Your task to perform on an android device: Open privacy settings Image 0: 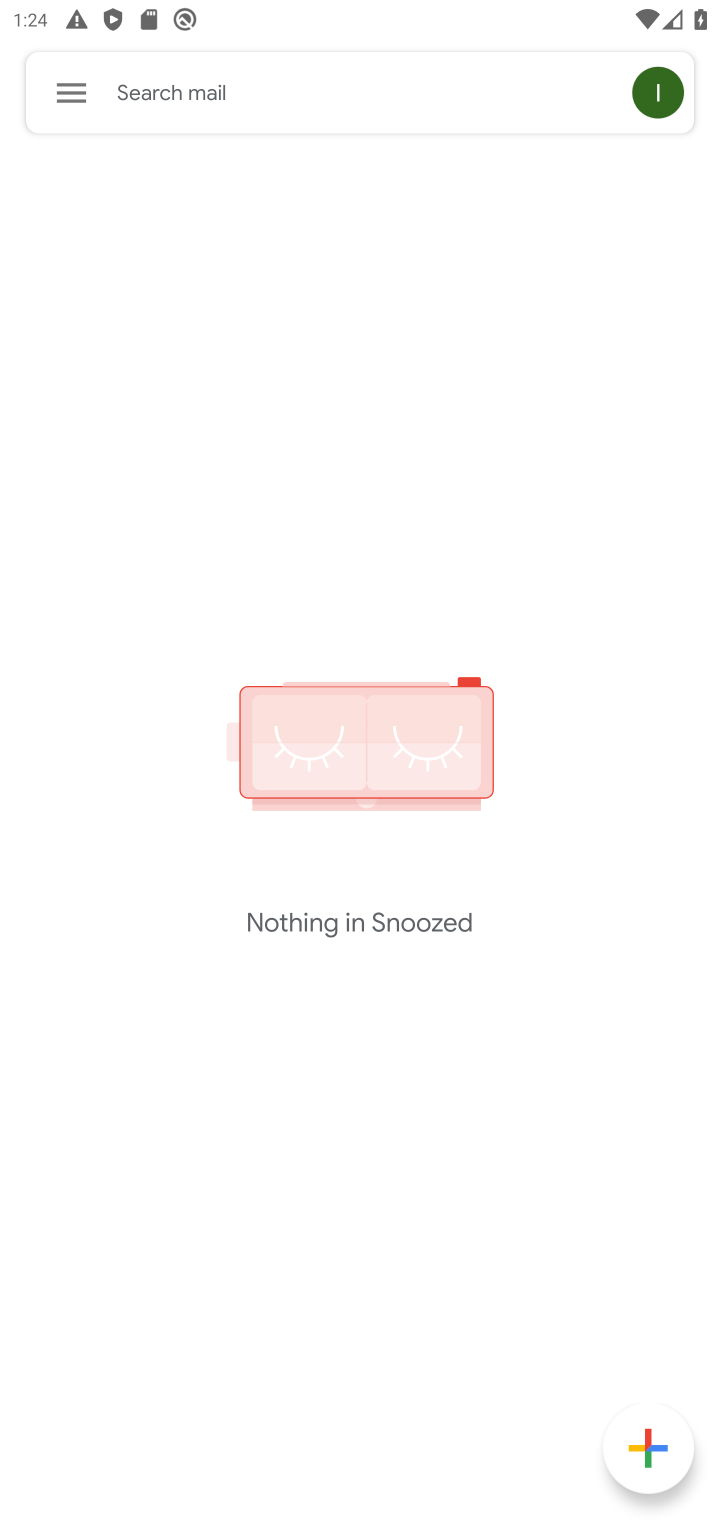
Step 0: press home button
Your task to perform on an android device: Open privacy settings Image 1: 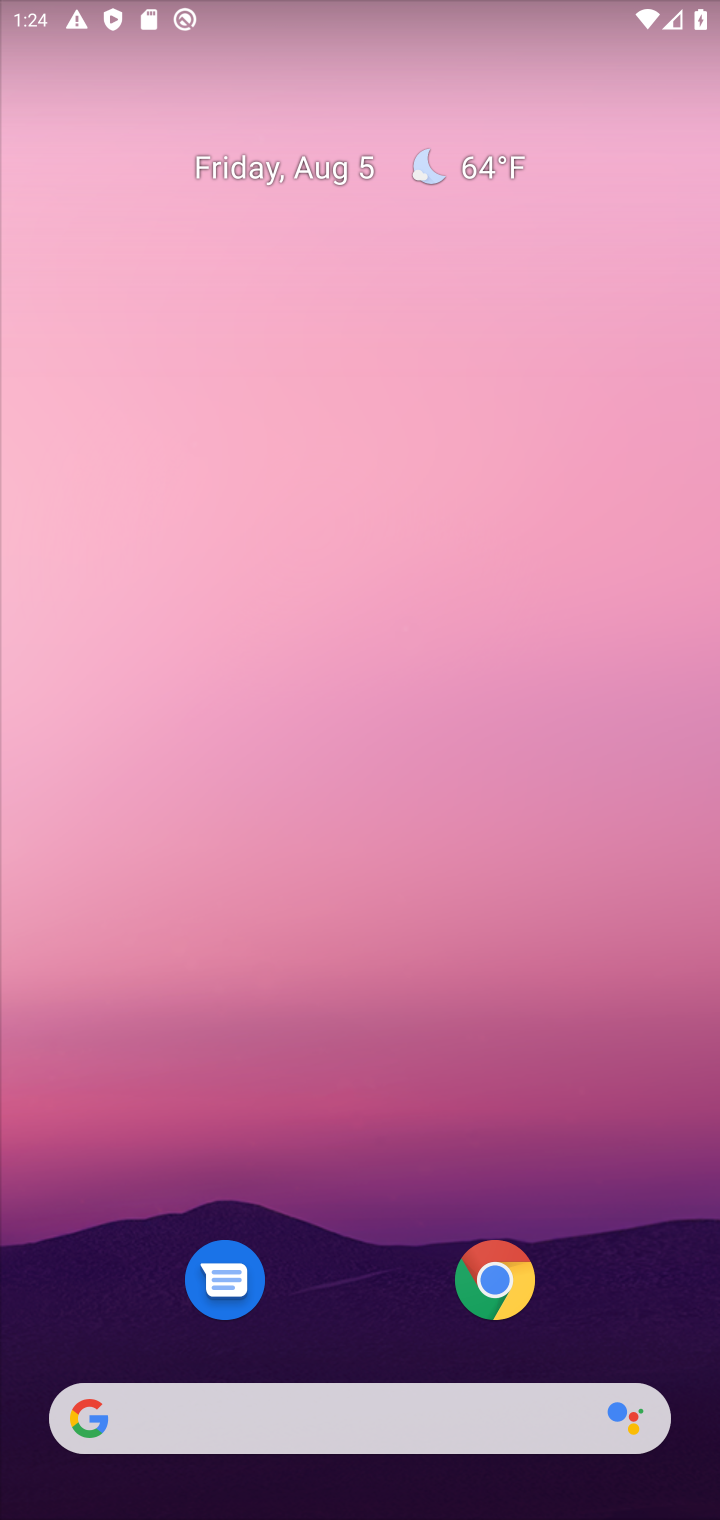
Step 1: drag from (335, 1269) to (268, 48)
Your task to perform on an android device: Open privacy settings Image 2: 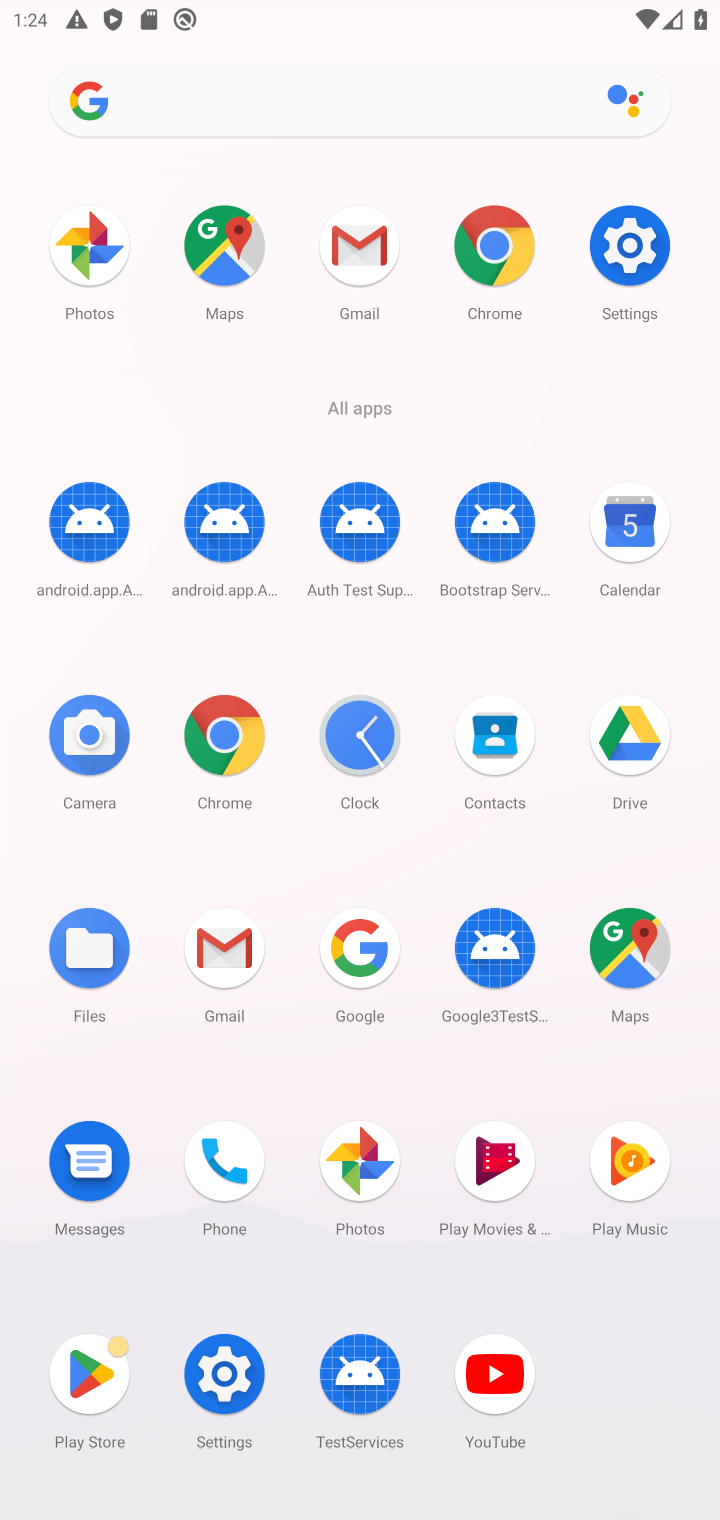
Step 2: click (215, 1370)
Your task to perform on an android device: Open privacy settings Image 3: 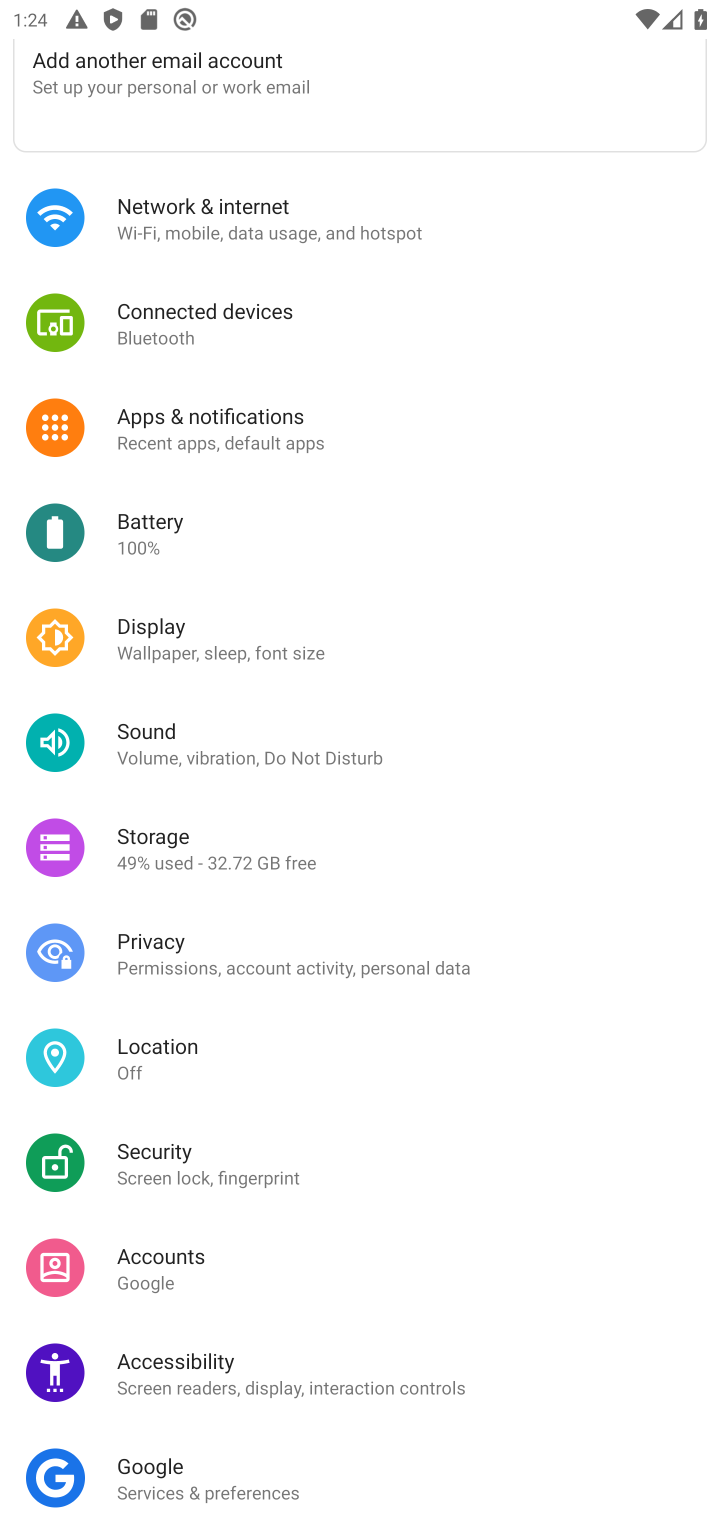
Step 3: click (206, 971)
Your task to perform on an android device: Open privacy settings Image 4: 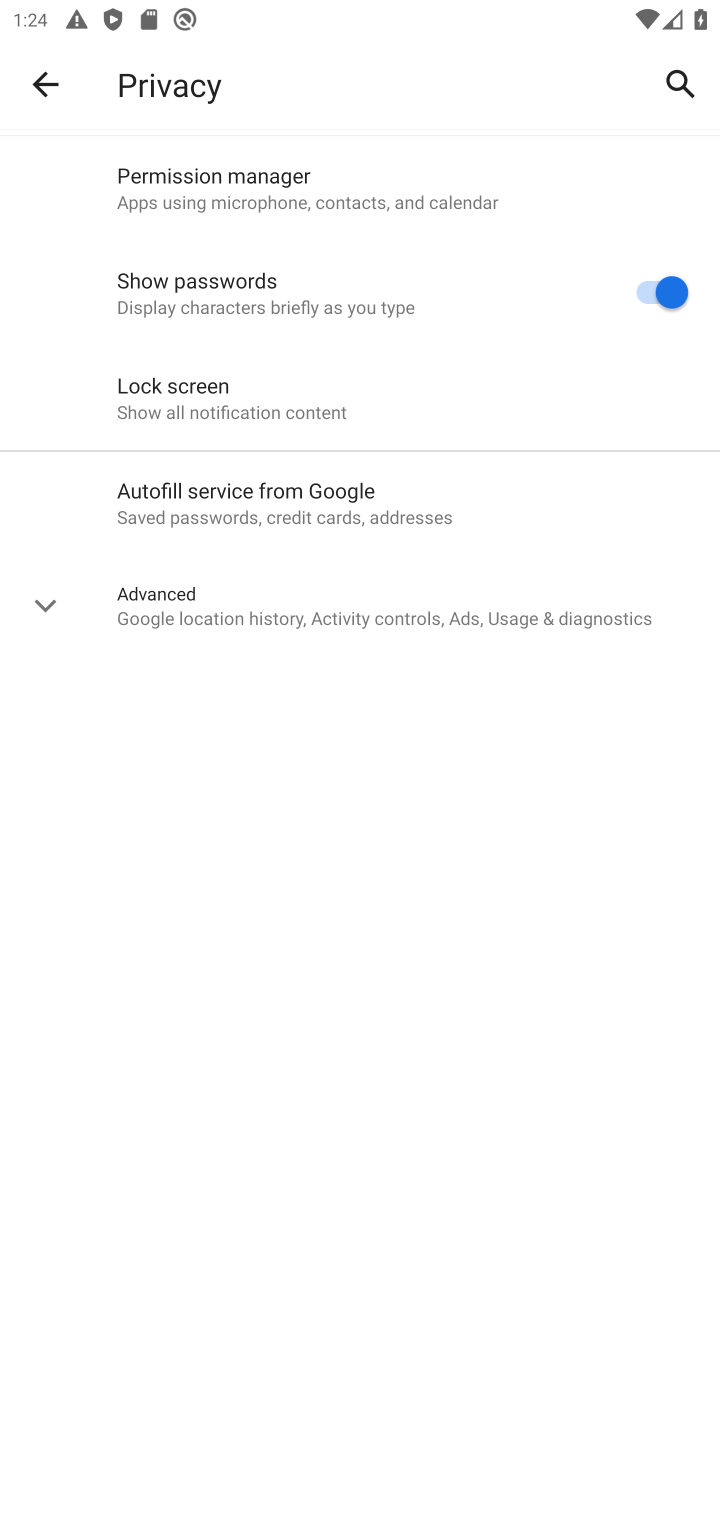
Step 4: click (206, 971)
Your task to perform on an android device: Open privacy settings Image 5: 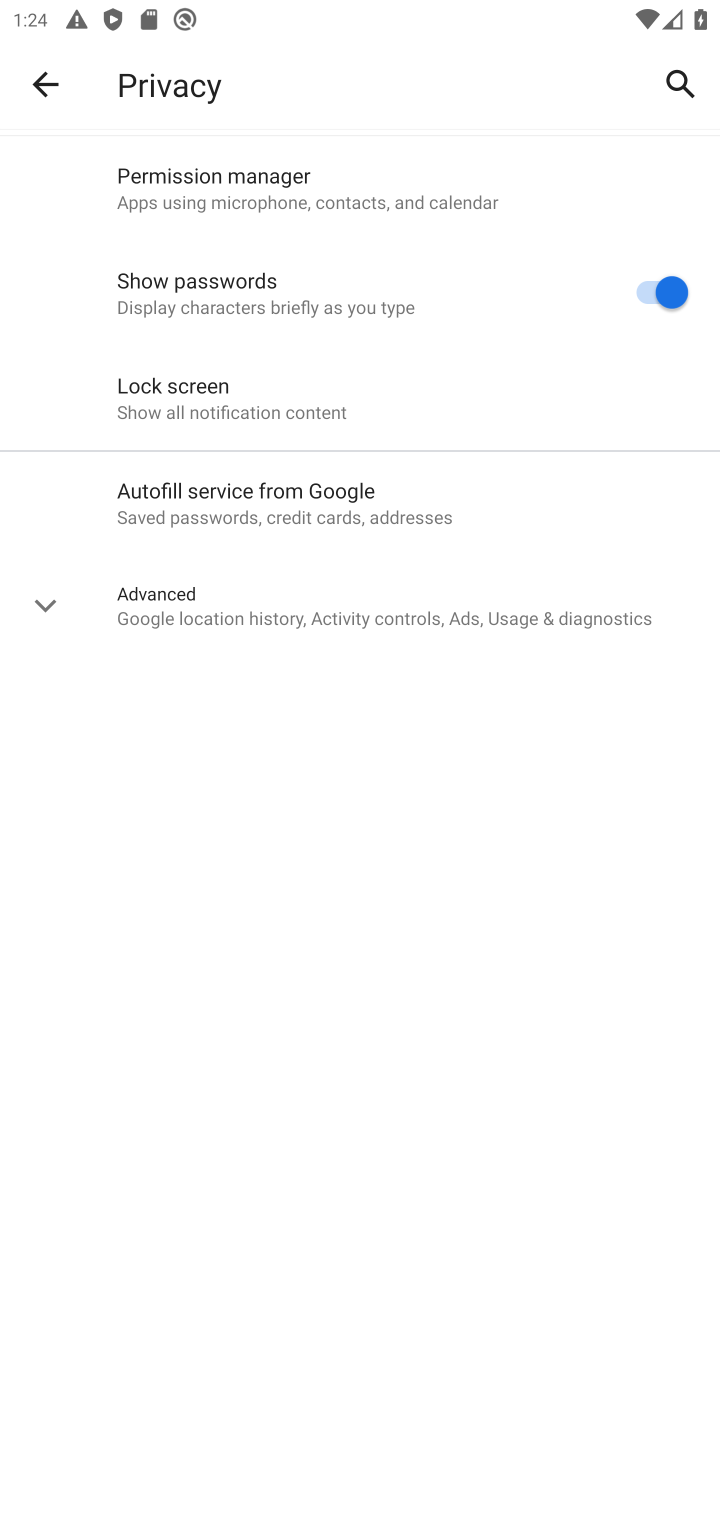
Step 5: task complete